Your task to perform on an android device: turn pop-ups off in chrome Image 0: 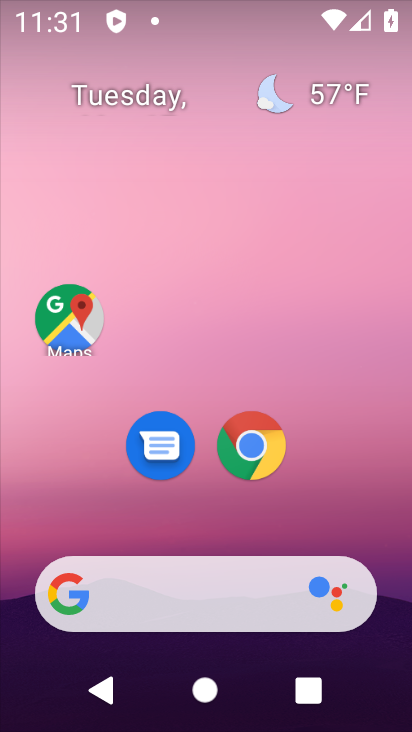
Step 0: drag from (366, 515) to (351, 163)
Your task to perform on an android device: turn pop-ups off in chrome Image 1: 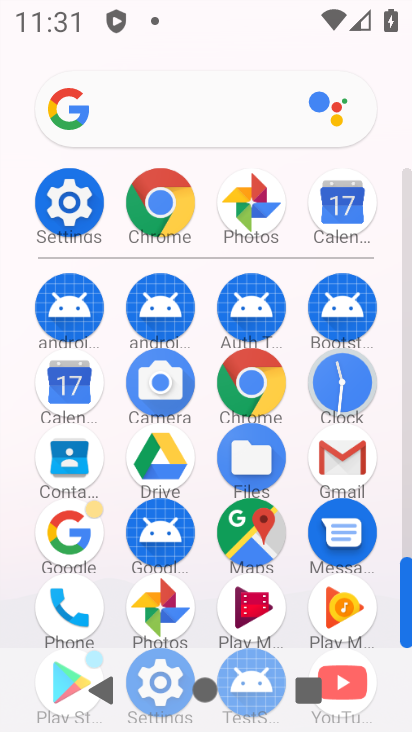
Step 1: click (167, 199)
Your task to perform on an android device: turn pop-ups off in chrome Image 2: 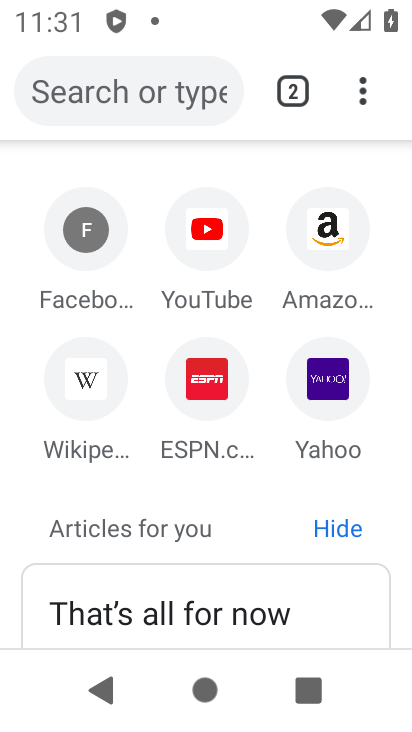
Step 2: click (362, 101)
Your task to perform on an android device: turn pop-ups off in chrome Image 3: 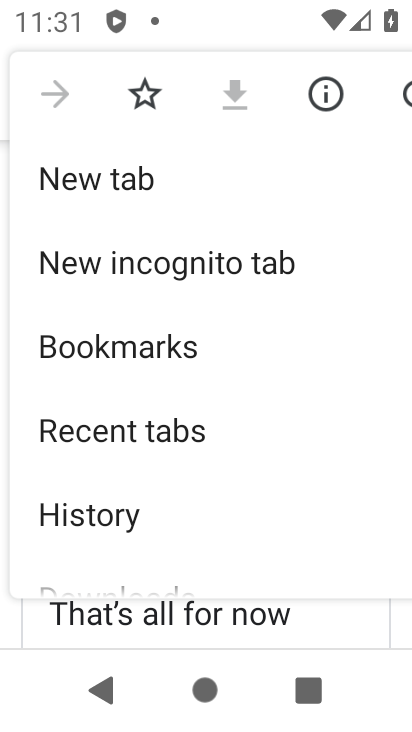
Step 3: drag from (348, 493) to (346, 345)
Your task to perform on an android device: turn pop-ups off in chrome Image 4: 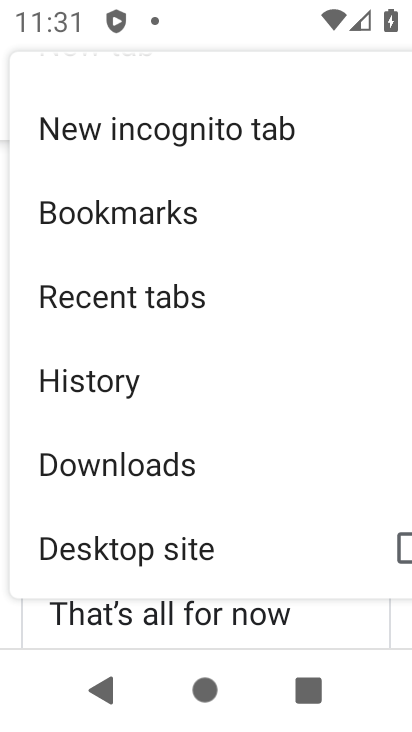
Step 4: drag from (307, 537) to (312, 356)
Your task to perform on an android device: turn pop-ups off in chrome Image 5: 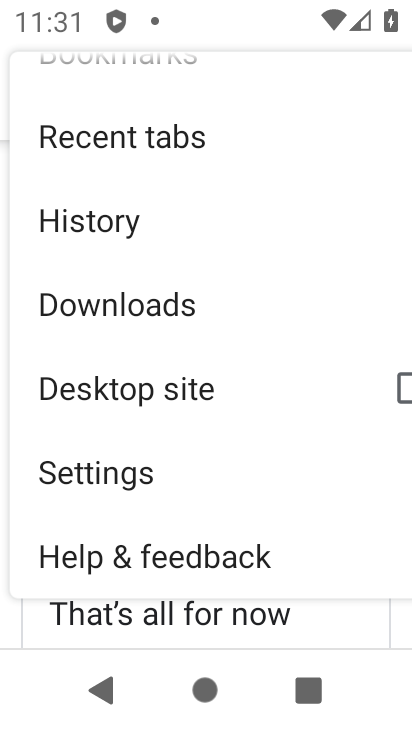
Step 5: drag from (280, 505) to (287, 307)
Your task to perform on an android device: turn pop-ups off in chrome Image 6: 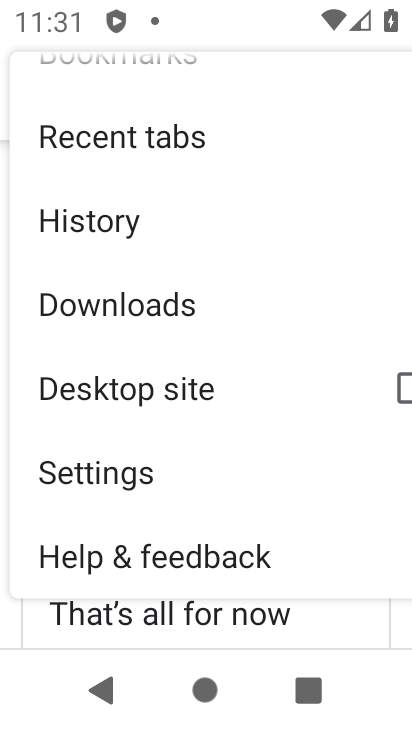
Step 6: click (159, 481)
Your task to perform on an android device: turn pop-ups off in chrome Image 7: 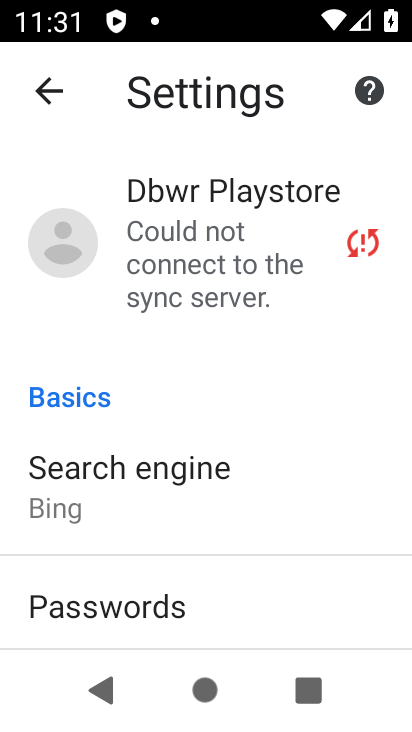
Step 7: drag from (277, 568) to (293, 403)
Your task to perform on an android device: turn pop-ups off in chrome Image 8: 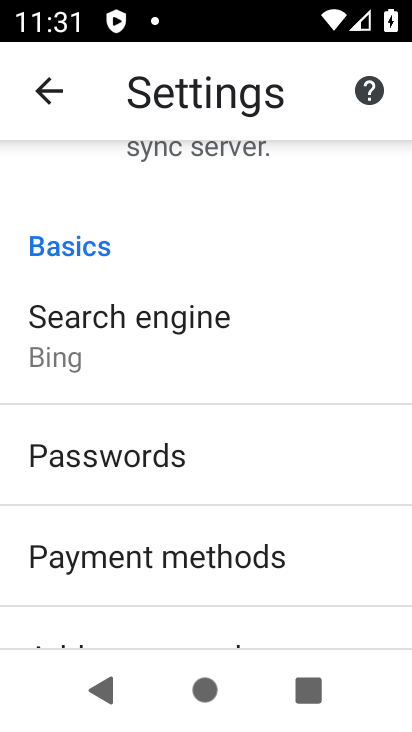
Step 8: drag from (333, 519) to (334, 450)
Your task to perform on an android device: turn pop-ups off in chrome Image 9: 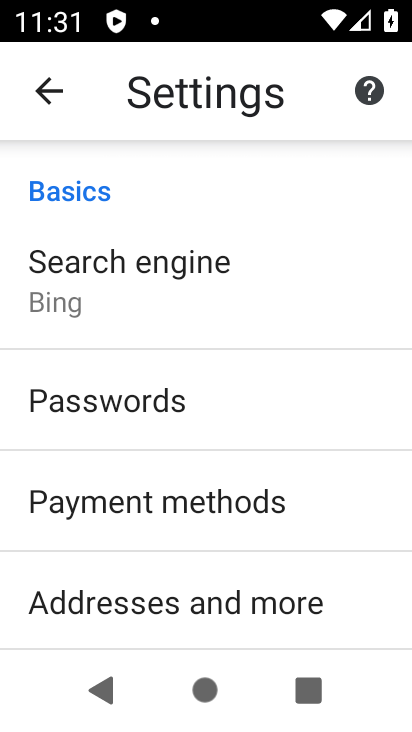
Step 9: drag from (337, 580) to (316, 426)
Your task to perform on an android device: turn pop-ups off in chrome Image 10: 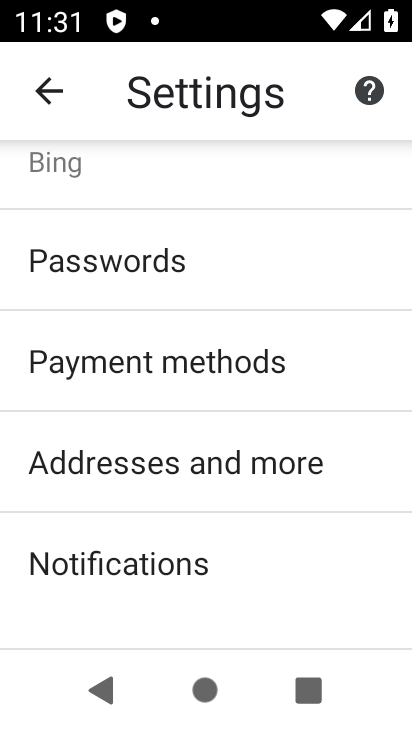
Step 10: drag from (304, 596) to (302, 441)
Your task to perform on an android device: turn pop-ups off in chrome Image 11: 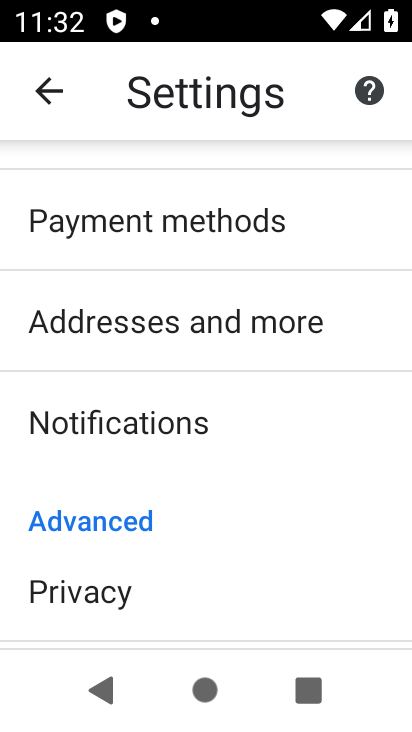
Step 11: drag from (294, 581) to (297, 482)
Your task to perform on an android device: turn pop-ups off in chrome Image 12: 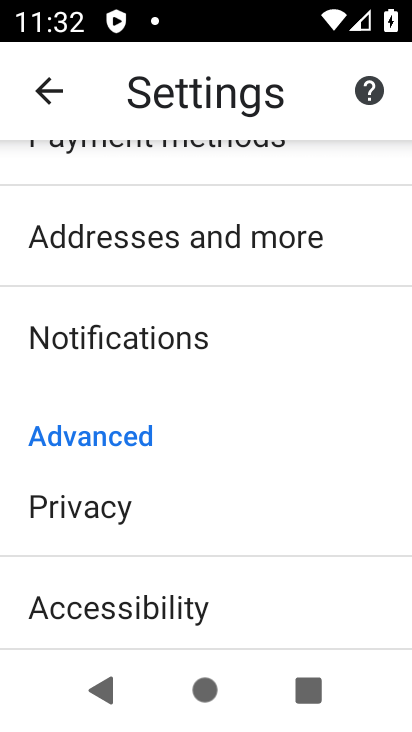
Step 12: drag from (287, 601) to (300, 489)
Your task to perform on an android device: turn pop-ups off in chrome Image 13: 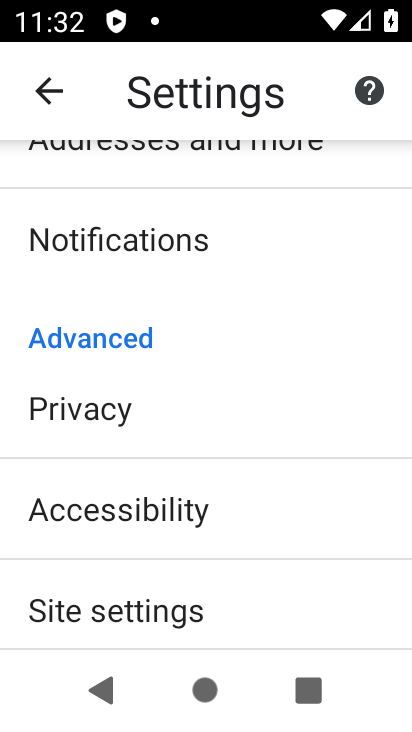
Step 13: drag from (299, 609) to (303, 492)
Your task to perform on an android device: turn pop-ups off in chrome Image 14: 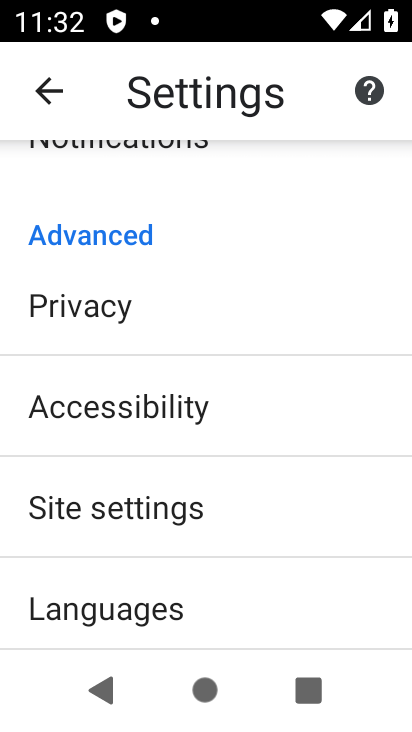
Step 14: drag from (289, 574) to (304, 452)
Your task to perform on an android device: turn pop-ups off in chrome Image 15: 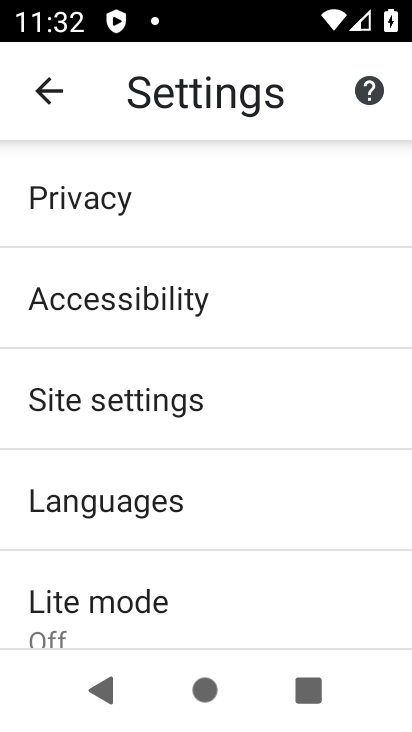
Step 15: click (224, 427)
Your task to perform on an android device: turn pop-ups off in chrome Image 16: 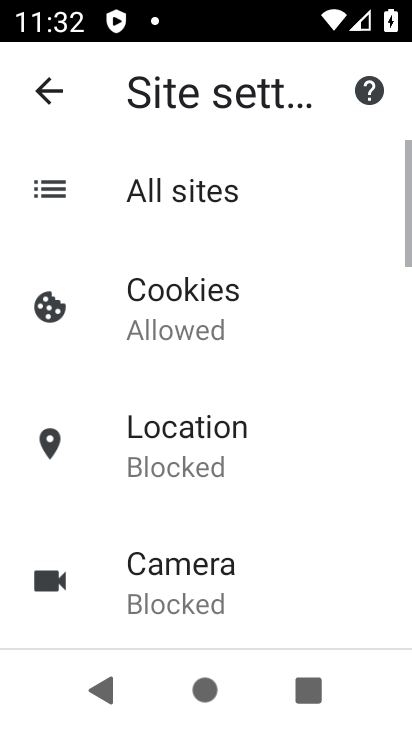
Step 16: drag from (268, 579) to (286, 459)
Your task to perform on an android device: turn pop-ups off in chrome Image 17: 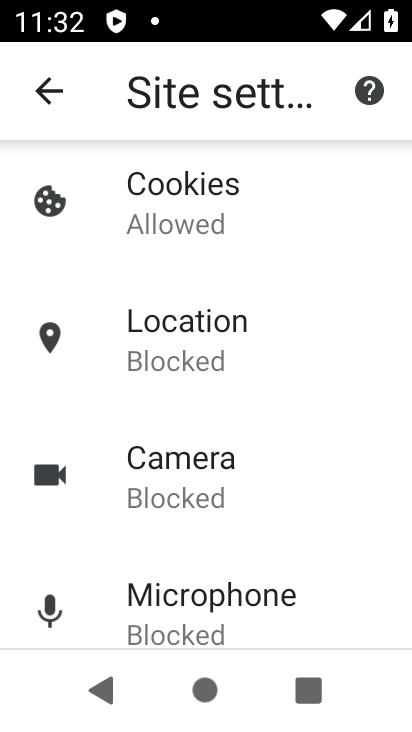
Step 17: drag from (314, 602) to (318, 465)
Your task to perform on an android device: turn pop-ups off in chrome Image 18: 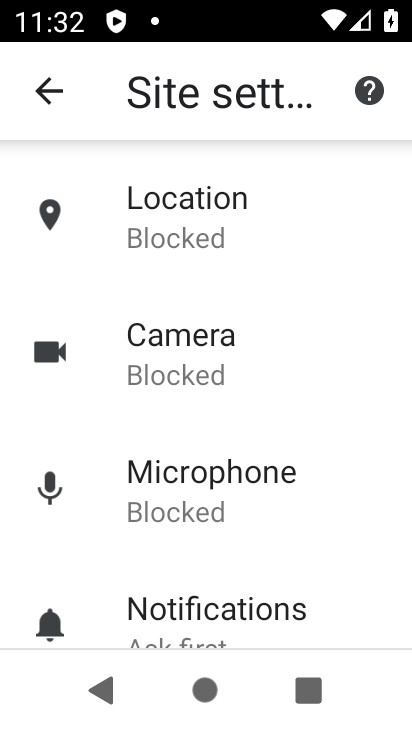
Step 18: drag from (322, 589) to (329, 430)
Your task to perform on an android device: turn pop-ups off in chrome Image 19: 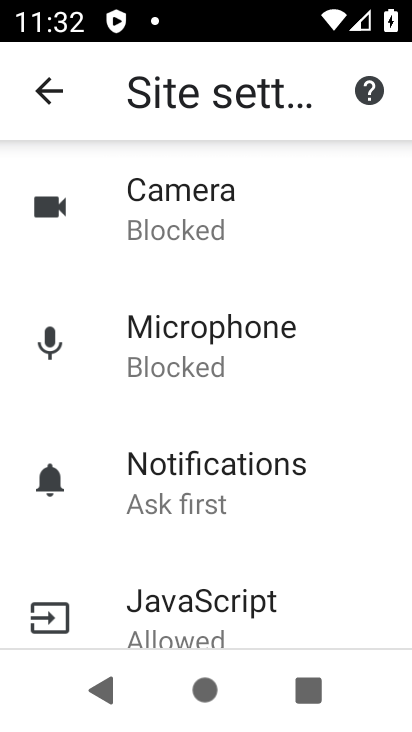
Step 19: drag from (339, 586) to (342, 451)
Your task to perform on an android device: turn pop-ups off in chrome Image 20: 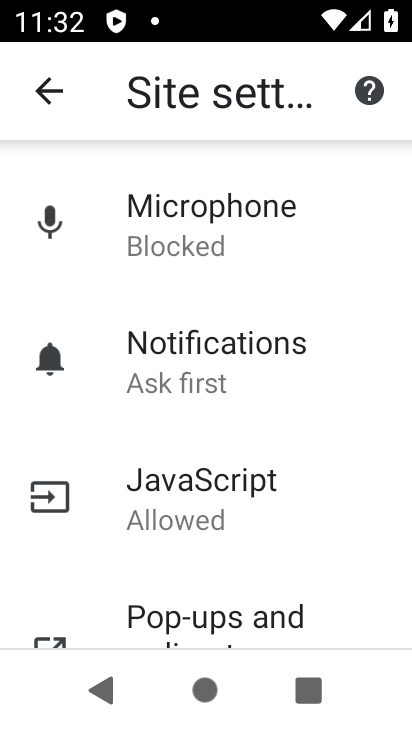
Step 20: drag from (343, 597) to (347, 453)
Your task to perform on an android device: turn pop-ups off in chrome Image 21: 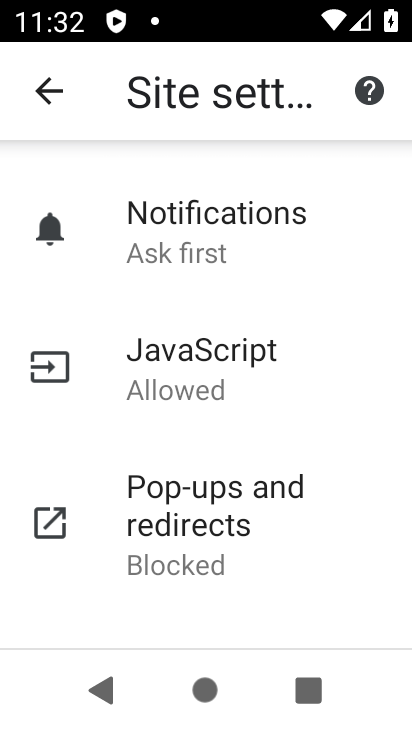
Step 21: drag from (358, 532) to (364, 386)
Your task to perform on an android device: turn pop-ups off in chrome Image 22: 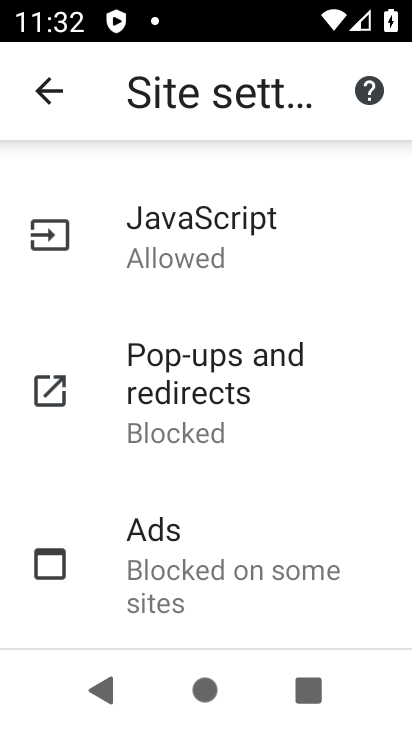
Step 22: click (227, 406)
Your task to perform on an android device: turn pop-ups off in chrome Image 23: 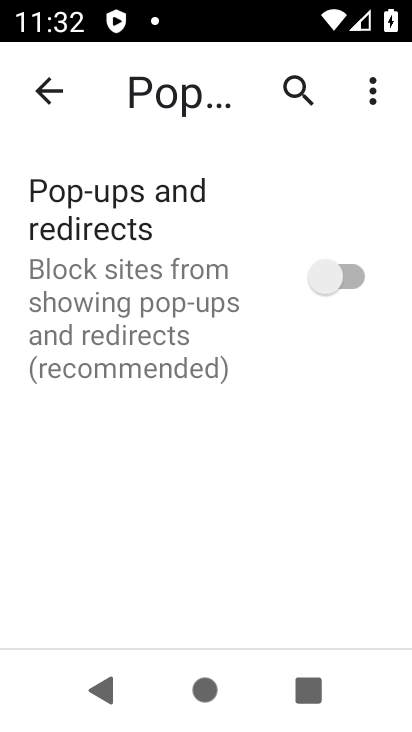
Step 23: task complete